Your task to perform on an android device: Open internet settings Image 0: 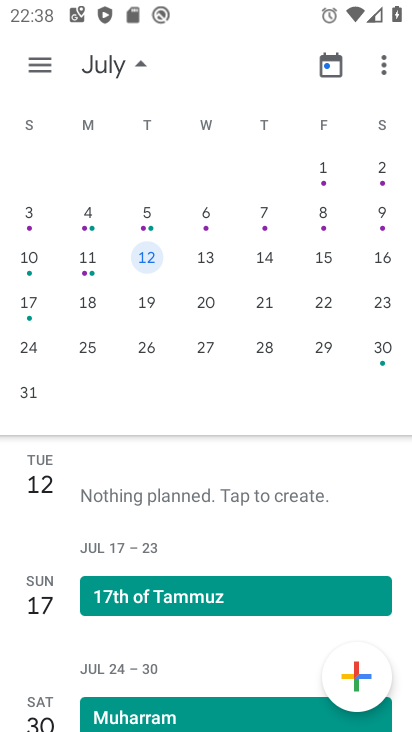
Step 0: press home button
Your task to perform on an android device: Open internet settings Image 1: 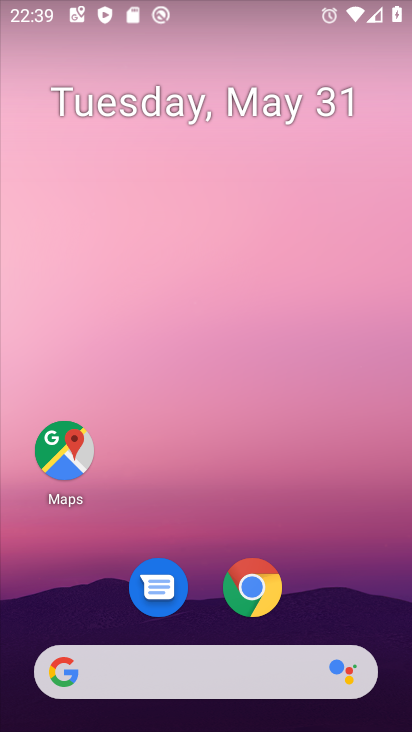
Step 1: drag from (361, 588) to (363, 200)
Your task to perform on an android device: Open internet settings Image 2: 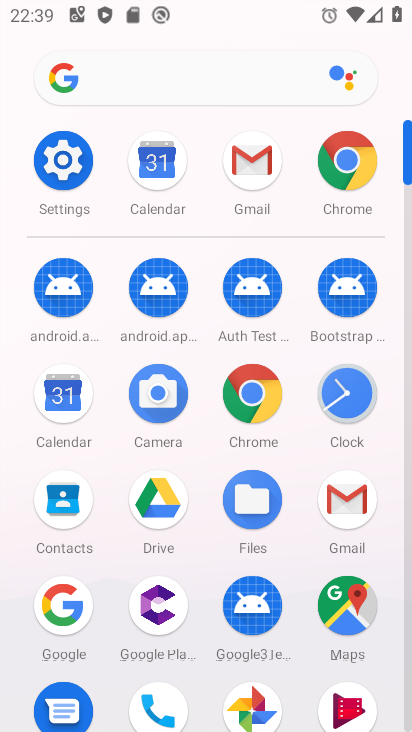
Step 2: click (81, 186)
Your task to perform on an android device: Open internet settings Image 3: 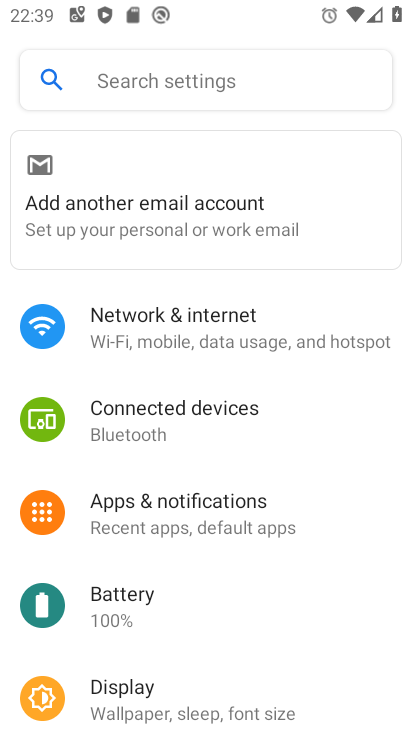
Step 3: drag from (325, 541) to (340, 411)
Your task to perform on an android device: Open internet settings Image 4: 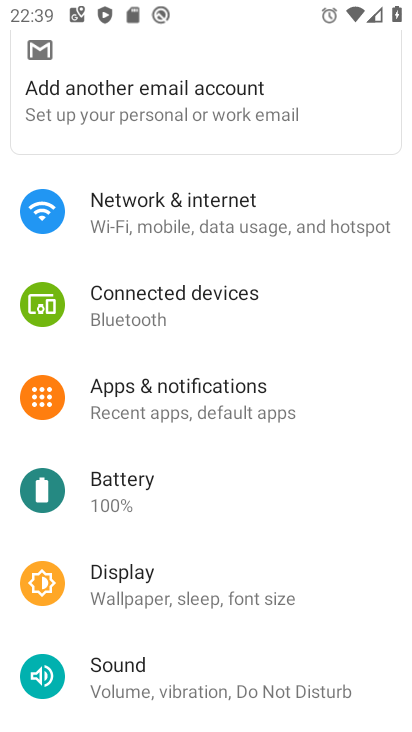
Step 4: drag from (337, 499) to (343, 392)
Your task to perform on an android device: Open internet settings Image 5: 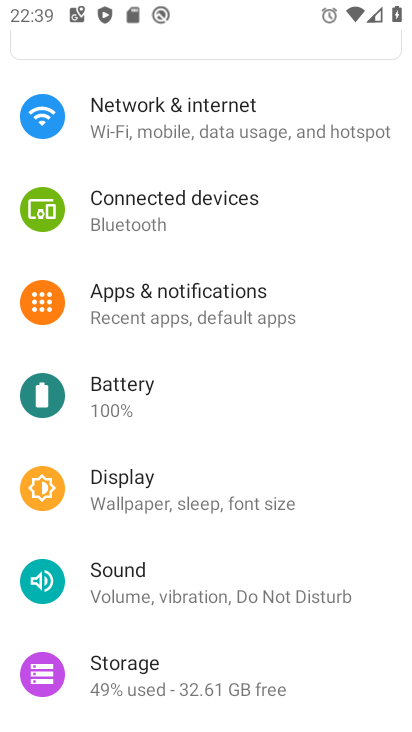
Step 5: drag from (348, 518) to (349, 427)
Your task to perform on an android device: Open internet settings Image 6: 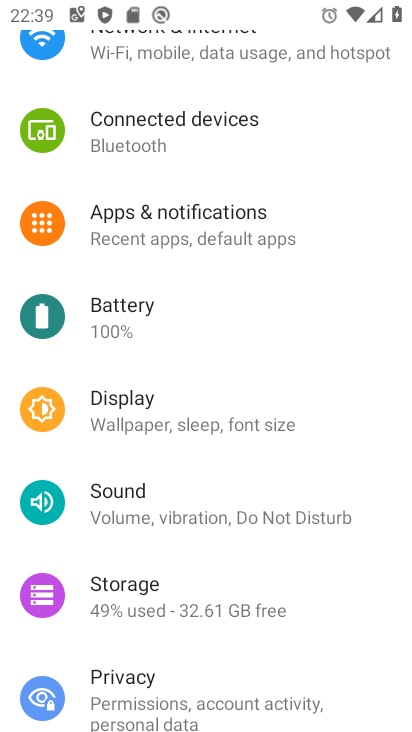
Step 6: drag from (352, 555) to (363, 442)
Your task to perform on an android device: Open internet settings Image 7: 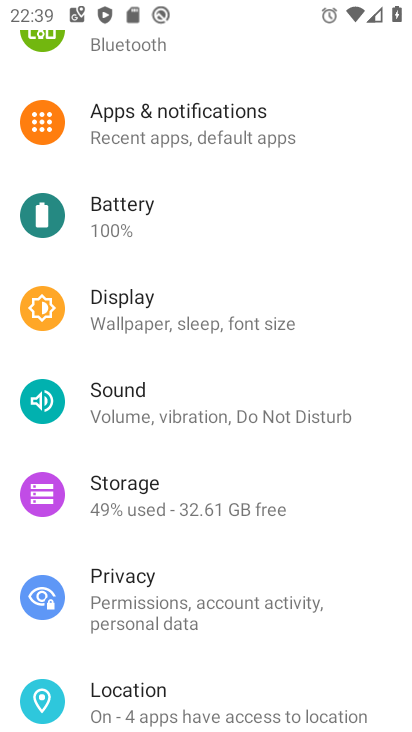
Step 7: drag from (358, 546) to (355, 432)
Your task to perform on an android device: Open internet settings Image 8: 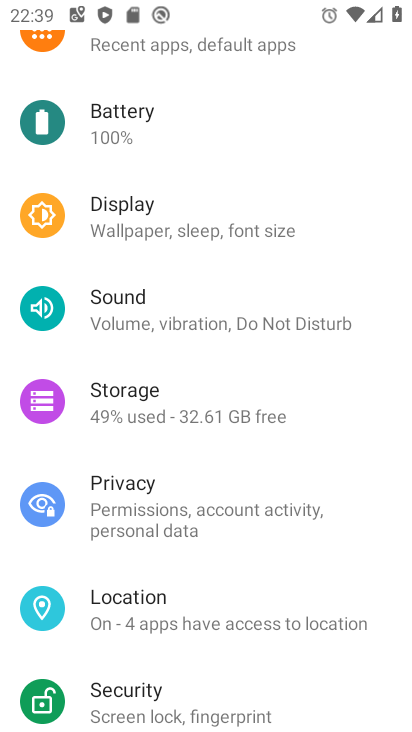
Step 8: drag from (354, 572) to (358, 482)
Your task to perform on an android device: Open internet settings Image 9: 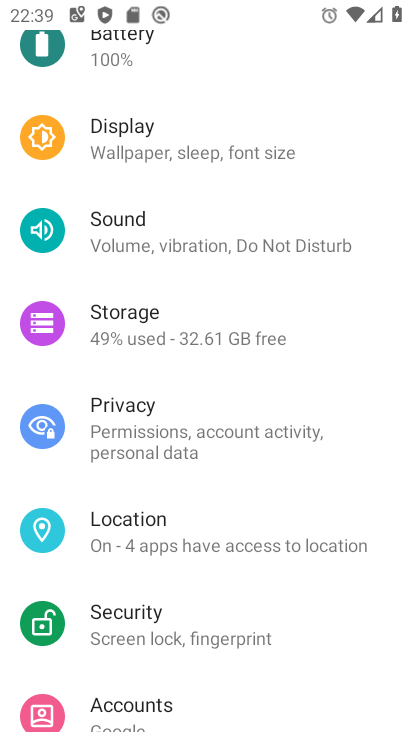
Step 9: drag from (353, 610) to (357, 493)
Your task to perform on an android device: Open internet settings Image 10: 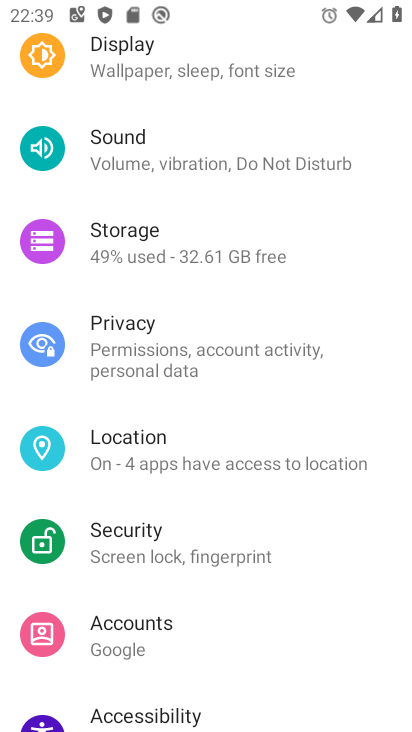
Step 10: drag from (349, 614) to (354, 481)
Your task to perform on an android device: Open internet settings Image 11: 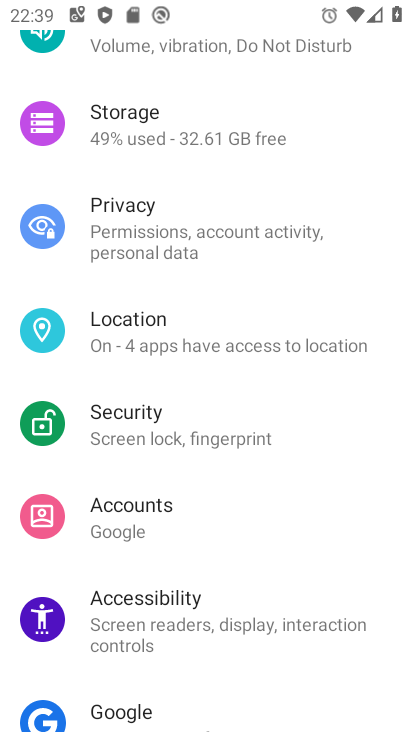
Step 11: drag from (358, 649) to (351, 514)
Your task to perform on an android device: Open internet settings Image 12: 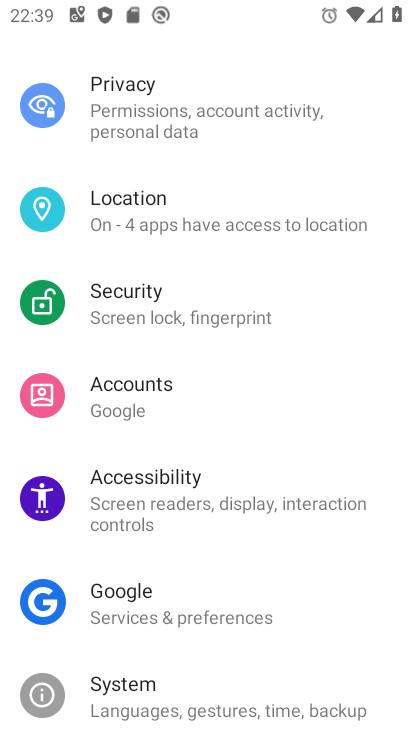
Step 12: drag from (349, 639) to (346, 494)
Your task to perform on an android device: Open internet settings Image 13: 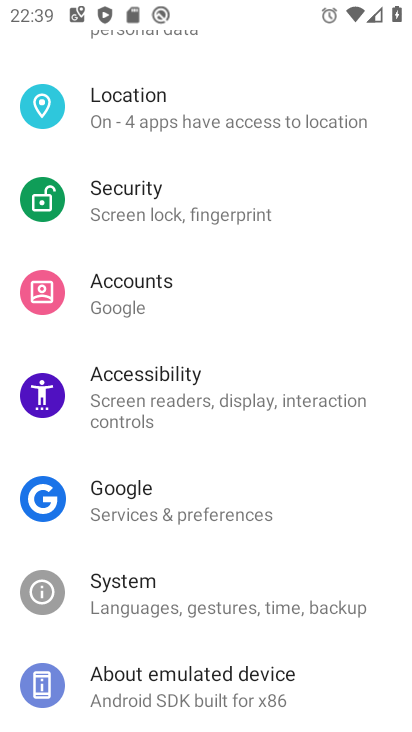
Step 13: drag from (344, 643) to (353, 440)
Your task to perform on an android device: Open internet settings Image 14: 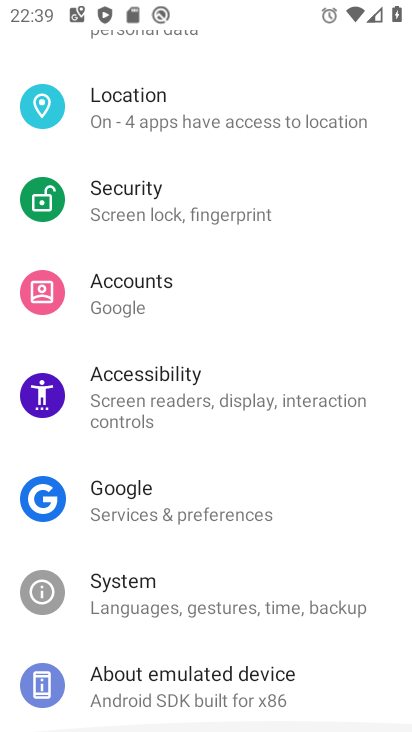
Step 14: drag from (352, 426) to (351, 552)
Your task to perform on an android device: Open internet settings Image 15: 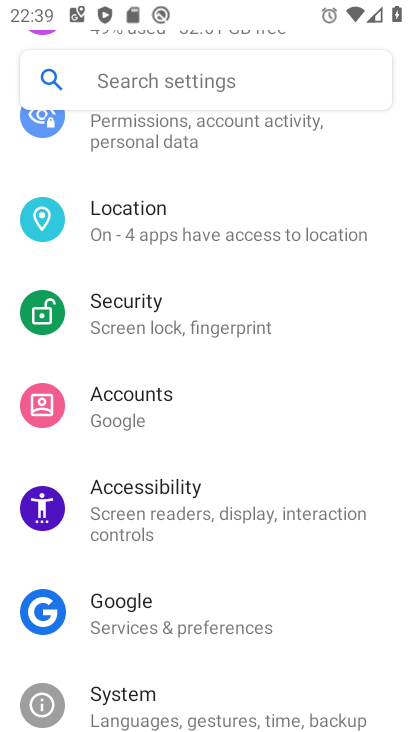
Step 15: drag from (331, 410) to (333, 520)
Your task to perform on an android device: Open internet settings Image 16: 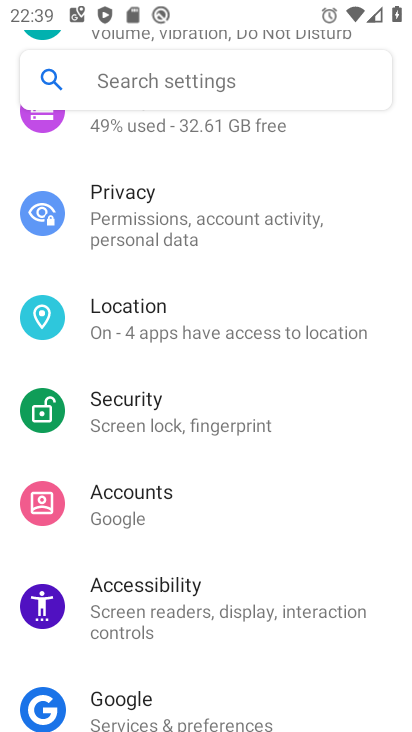
Step 16: drag from (328, 405) to (334, 508)
Your task to perform on an android device: Open internet settings Image 17: 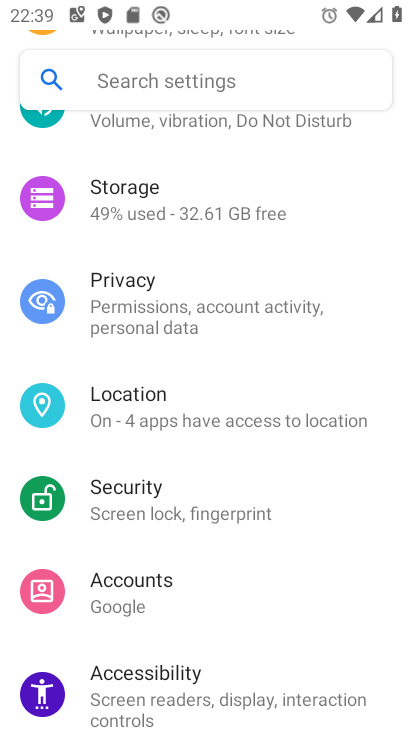
Step 17: drag from (332, 350) to (346, 471)
Your task to perform on an android device: Open internet settings Image 18: 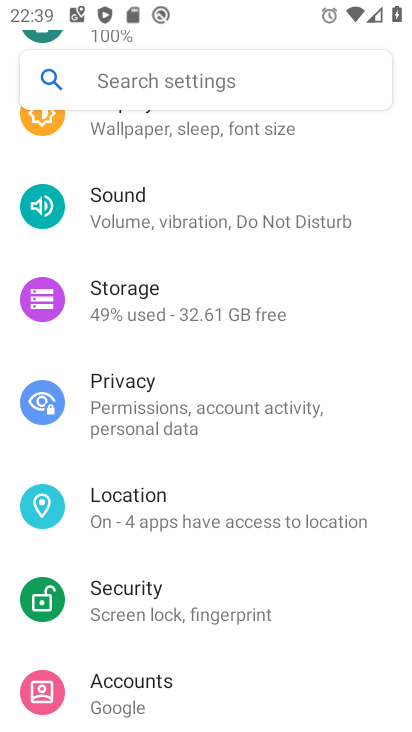
Step 18: drag from (343, 334) to (352, 450)
Your task to perform on an android device: Open internet settings Image 19: 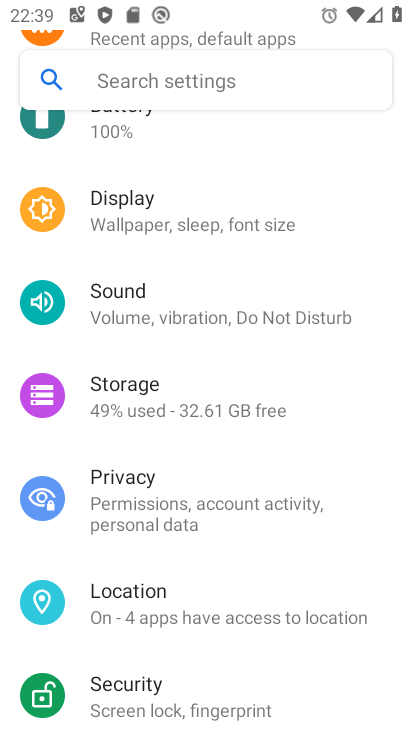
Step 19: drag from (361, 252) to (353, 410)
Your task to perform on an android device: Open internet settings Image 20: 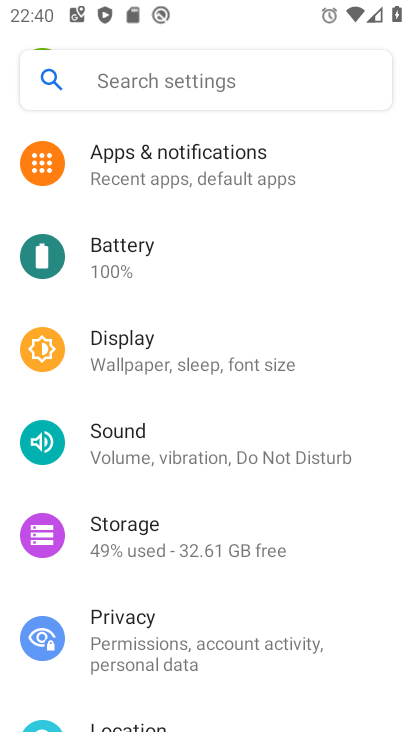
Step 20: drag from (335, 283) to (335, 418)
Your task to perform on an android device: Open internet settings Image 21: 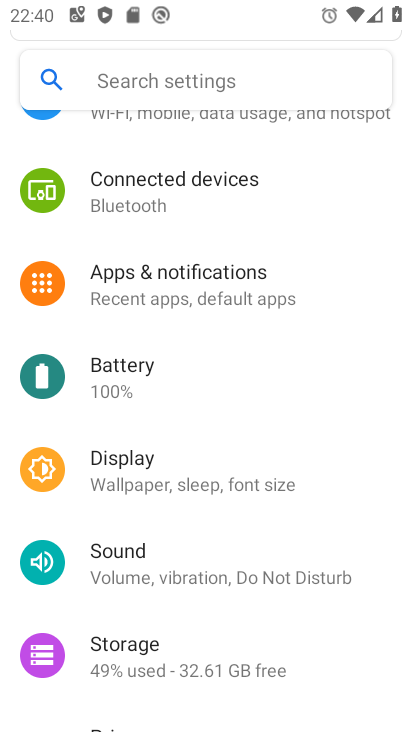
Step 21: drag from (356, 267) to (358, 351)
Your task to perform on an android device: Open internet settings Image 22: 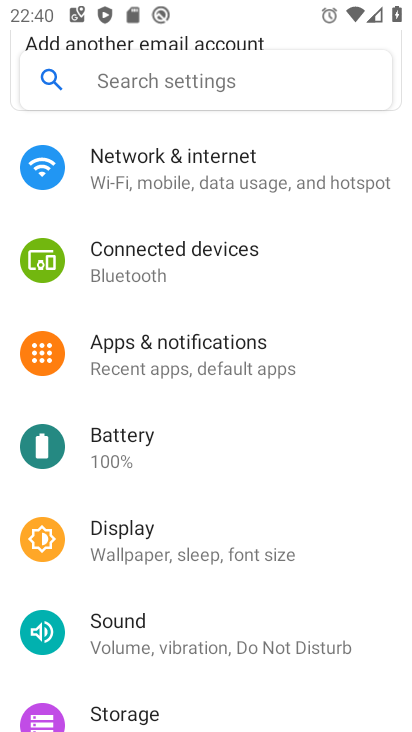
Step 22: drag from (324, 270) to (329, 429)
Your task to perform on an android device: Open internet settings Image 23: 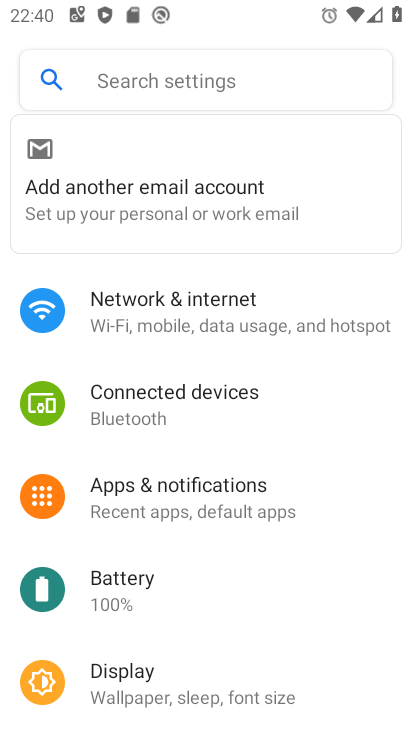
Step 23: drag from (346, 282) to (357, 435)
Your task to perform on an android device: Open internet settings Image 24: 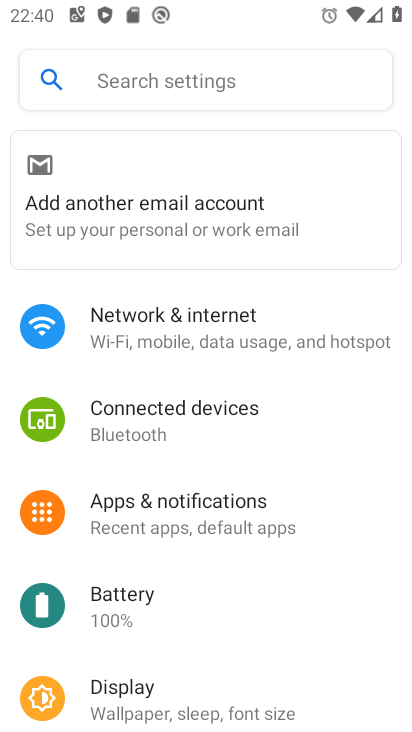
Step 24: click (265, 343)
Your task to perform on an android device: Open internet settings Image 25: 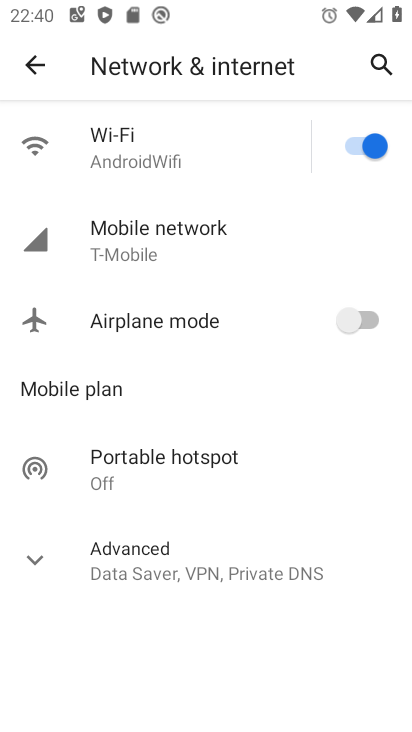
Step 25: task complete